Your task to perform on an android device: Open the calendar and show me this week's events? Image 0: 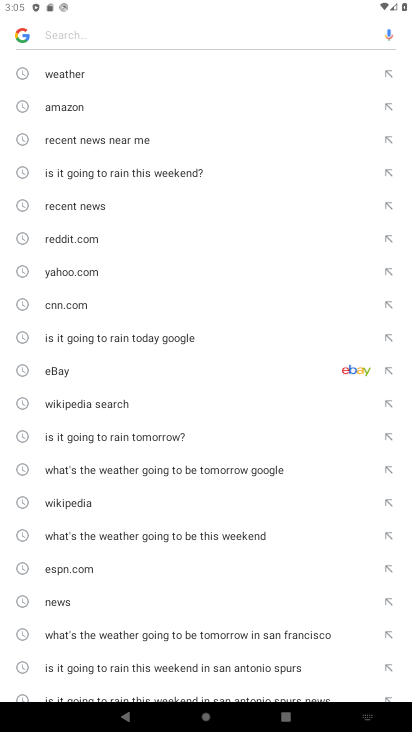
Step 0: press home button
Your task to perform on an android device: Open the calendar and show me this week's events? Image 1: 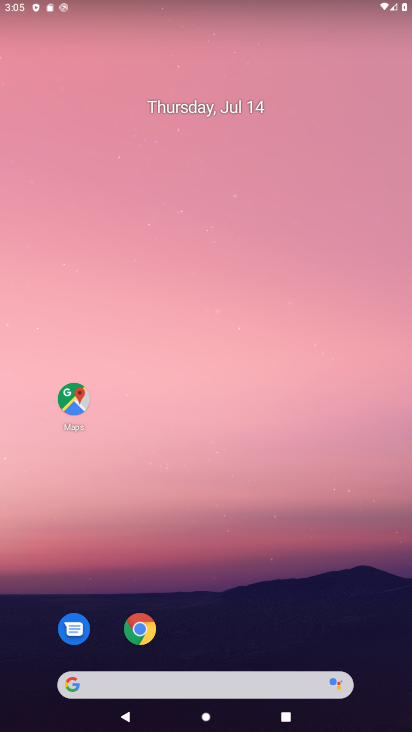
Step 1: drag from (314, 591) to (268, 89)
Your task to perform on an android device: Open the calendar and show me this week's events? Image 2: 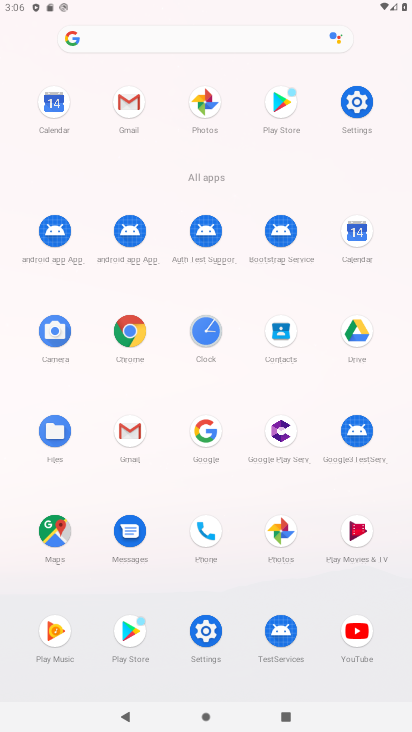
Step 2: click (361, 230)
Your task to perform on an android device: Open the calendar and show me this week's events? Image 3: 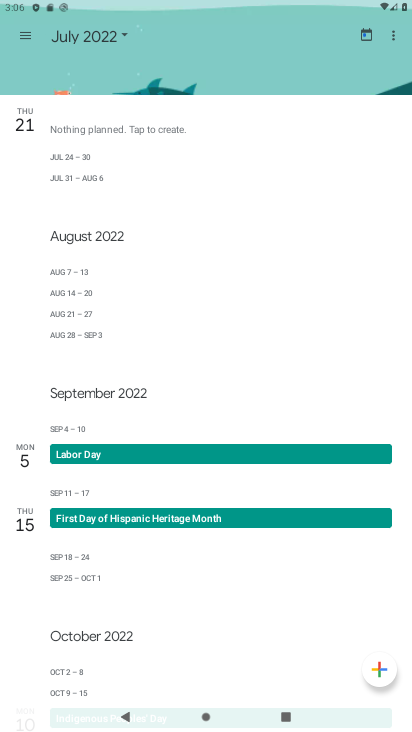
Step 3: click (68, 35)
Your task to perform on an android device: Open the calendar and show me this week's events? Image 4: 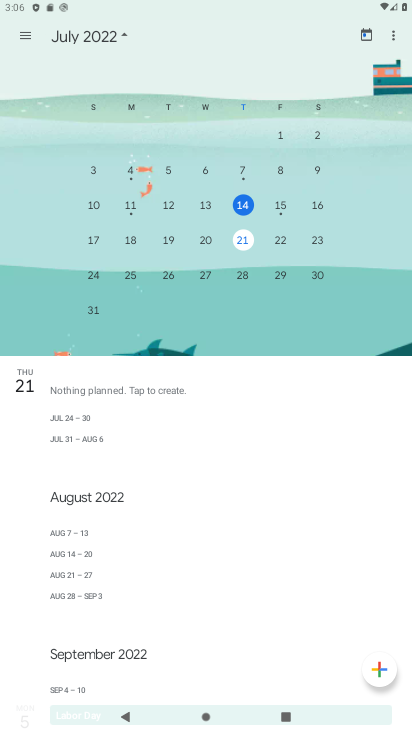
Step 4: task complete